Your task to perform on an android device: change keyboard looks Image 0: 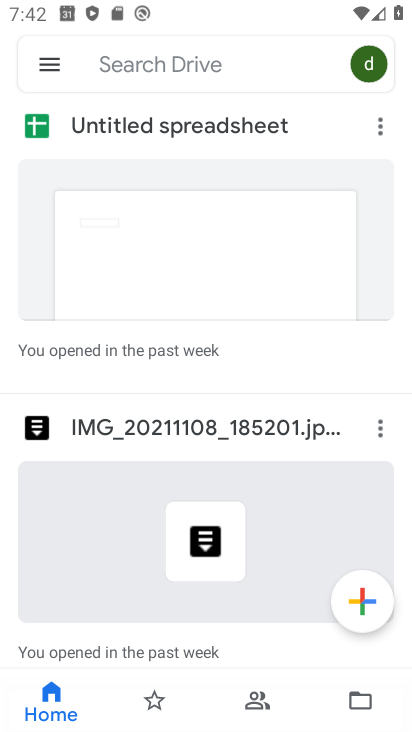
Step 0: press home button
Your task to perform on an android device: change keyboard looks Image 1: 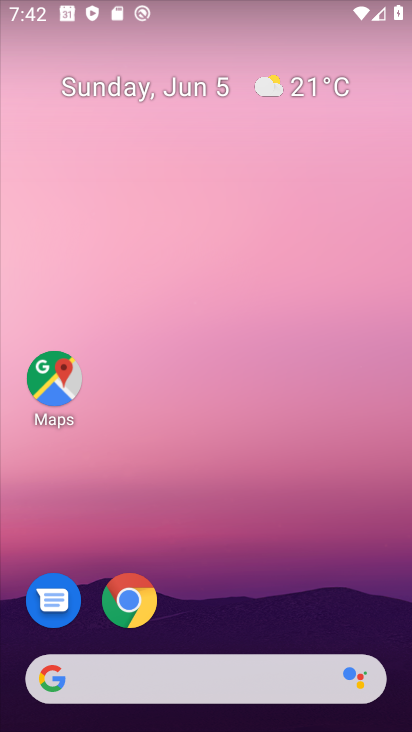
Step 1: drag from (266, 591) to (291, 40)
Your task to perform on an android device: change keyboard looks Image 2: 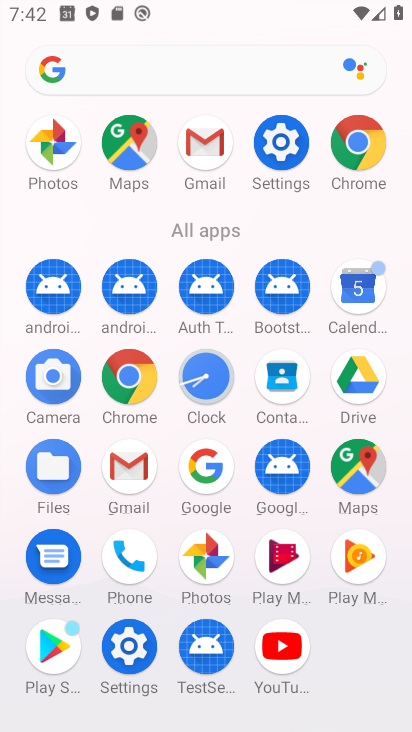
Step 2: click (275, 140)
Your task to perform on an android device: change keyboard looks Image 3: 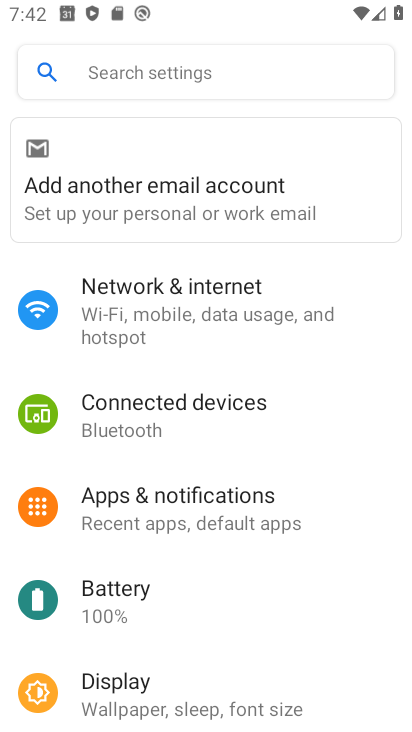
Step 3: drag from (229, 588) to (263, 174)
Your task to perform on an android device: change keyboard looks Image 4: 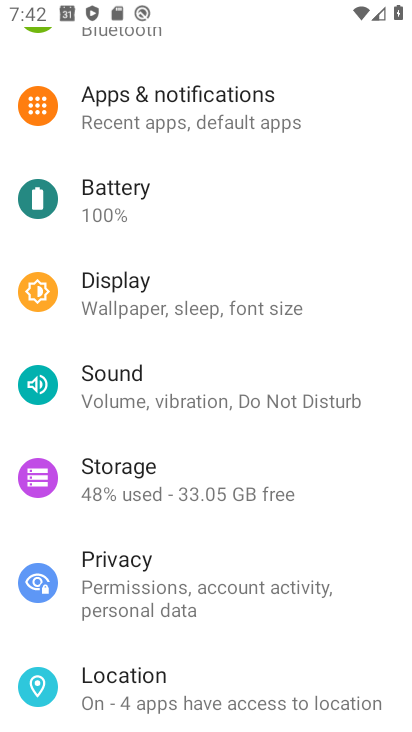
Step 4: drag from (212, 558) to (260, 165)
Your task to perform on an android device: change keyboard looks Image 5: 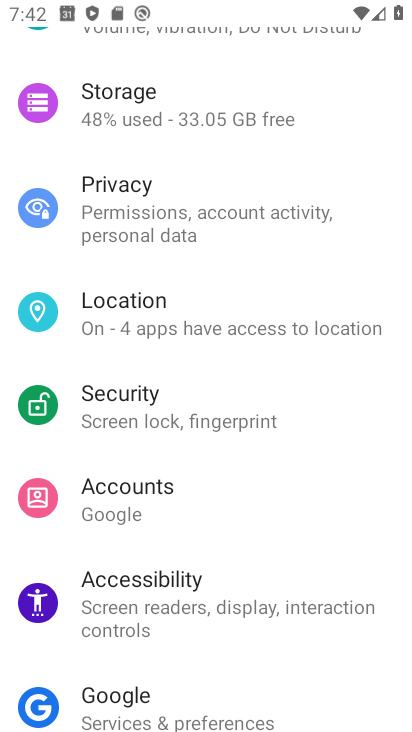
Step 5: drag from (240, 585) to (248, 283)
Your task to perform on an android device: change keyboard looks Image 6: 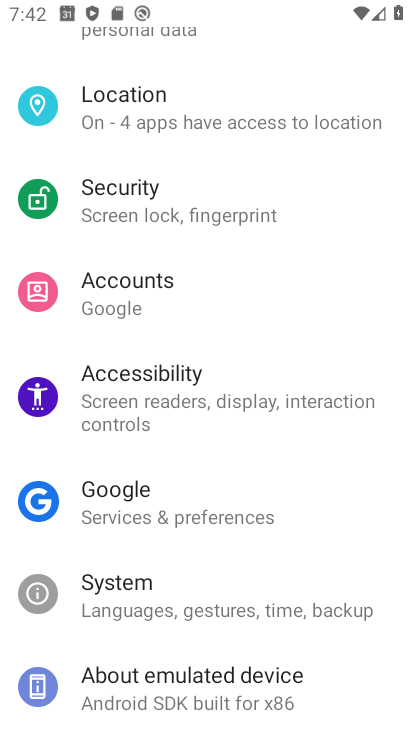
Step 6: click (227, 598)
Your task to perform on an android device: change keyboard looks Image 7: 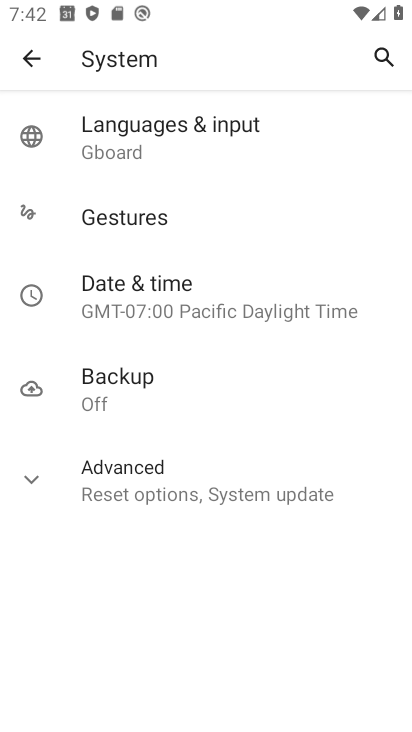
Step 7: click (199, 143)
Your task to perform on an android device: change keyboard looks Image 8: 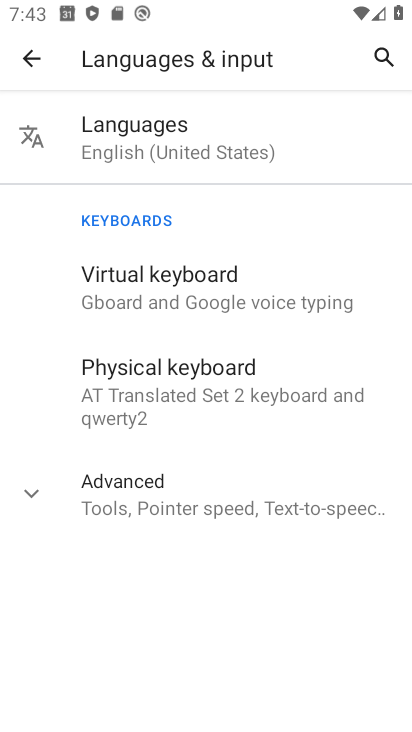
Step 8: click (171, 281)
Your task to perform on an android device: change keyboard looks Image 9: 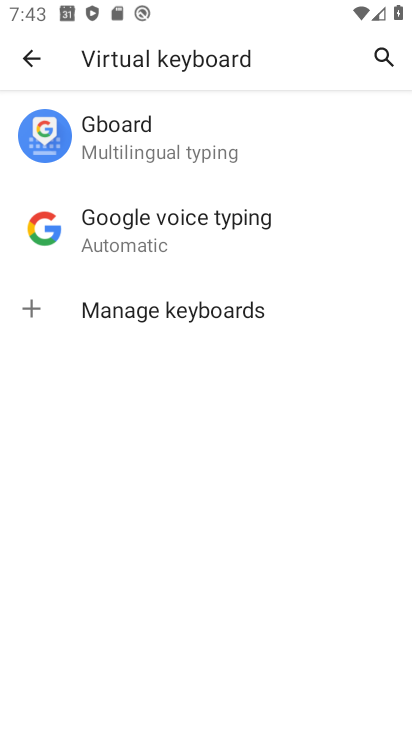
Step 9: click (162, 135)
Your task to perform on an android device: change keyboard looks Image 10: 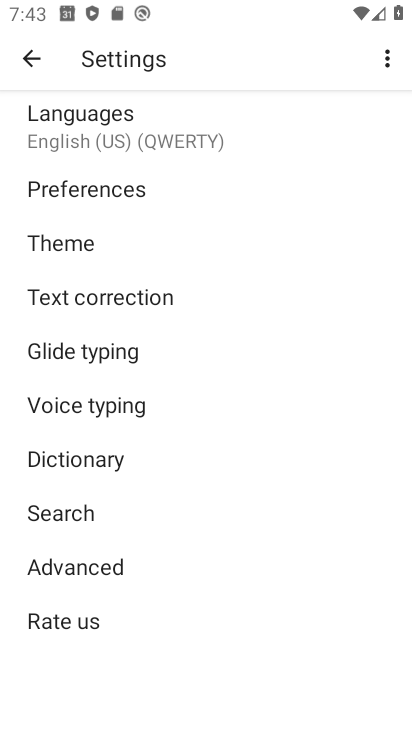
Step 10: click (140, 238)
Your task to perform on an android device: change keyboard looks Image 11: 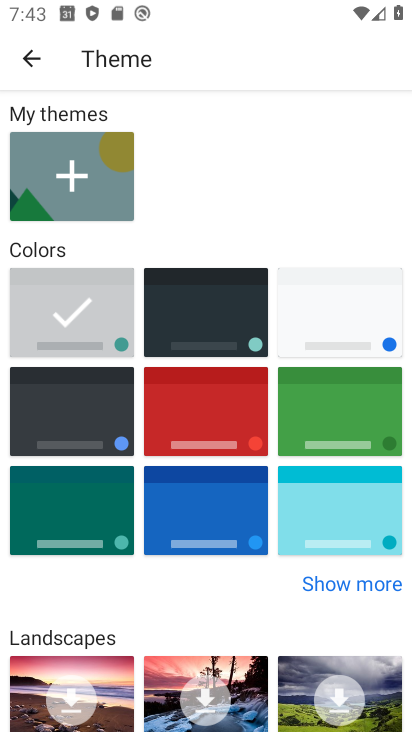
Step 11: click (196, 402)
Your task to perform on an android device: change keyboard looks Image 12: 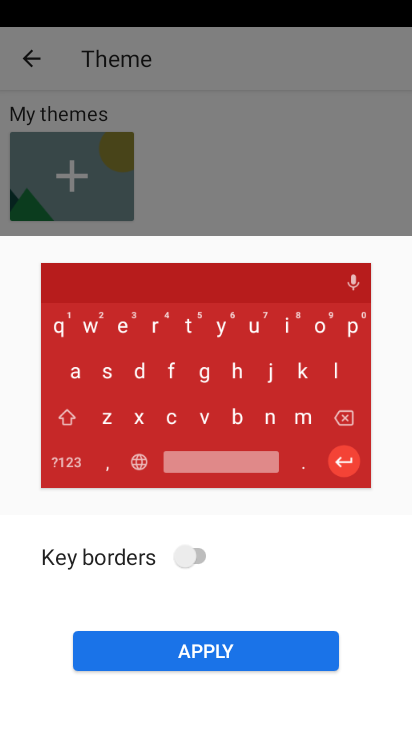
Step 12: click (188, 556)
Your task to perform on an android device: change keyboard looks Image 13: 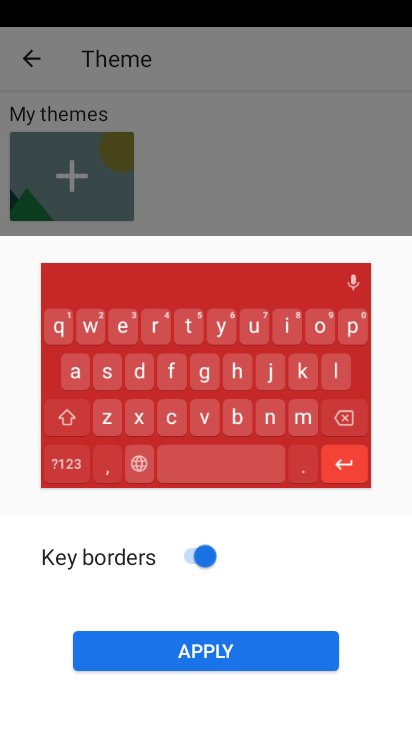
Step 13: click (225, 643)
Your task to perform on an android device: change keyboard looks Image 14: 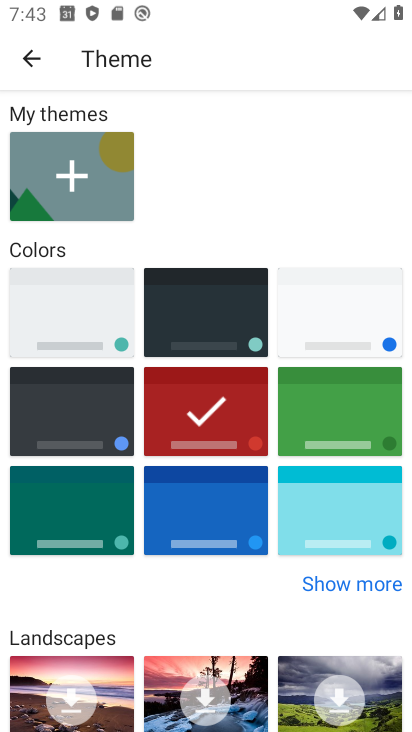
Step 14: task complete